Your task to perform on an android device: Clear the shopping cart on target. Search for energizer triple a on target, select the first entry, add it to the cart, then select checkout. Image 0: 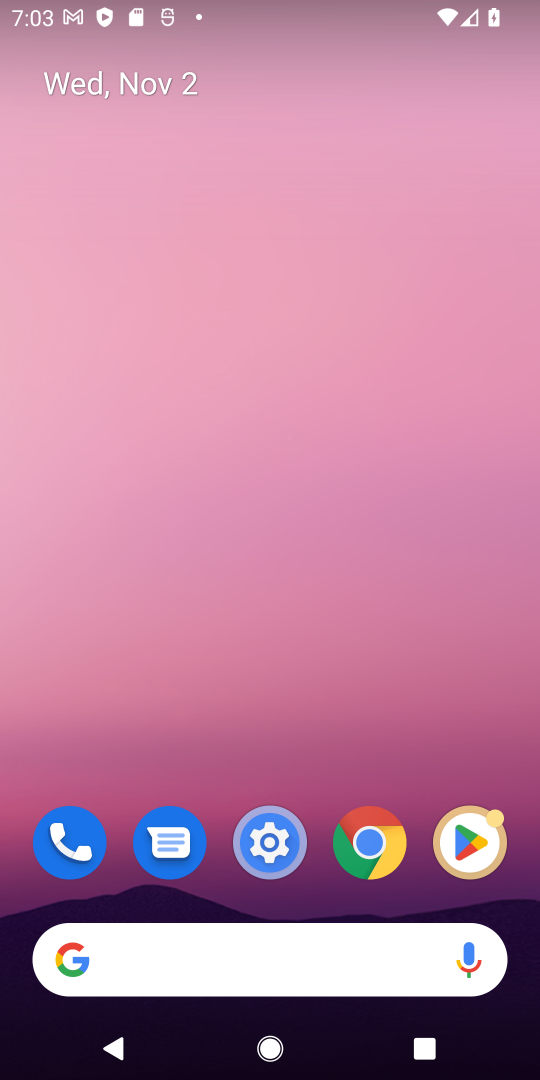
Step 0: drag from (263, 874) to (248, 407)
Your task to perform on an android device: Clear the shopping cart on target. Search for energizer triple a on target, select the first entry, add it to the cart, then select checkout. Image 1: 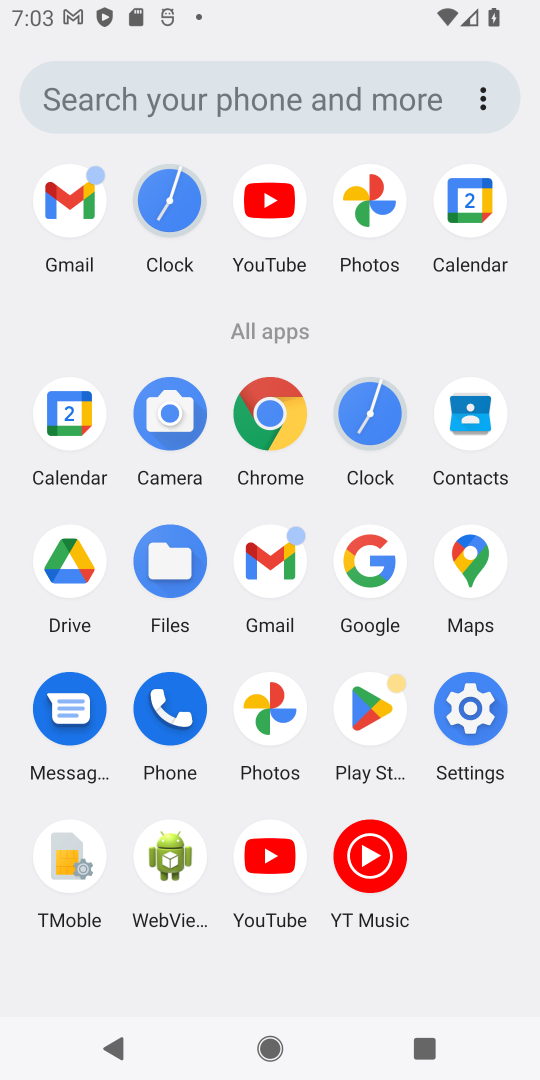
Step 1: click (390, 567)
Your task to perform on an android device: Clear the shopping cart on target. Search for energizer triple a on target, select the first entry, add it to the cart, then select checkout. Image 2: 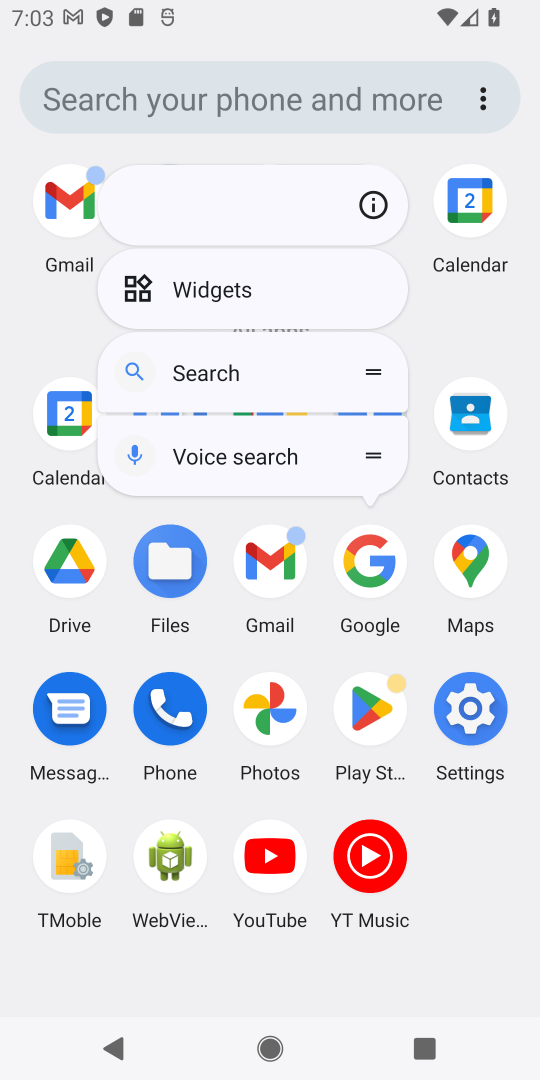
Step 2: click (373, 550)
Your task to perform on an android device: Clear the shopping cart on target. Search for energizer triple a on target, select the first entry, add it to the cart, then select checkout. Image 3: 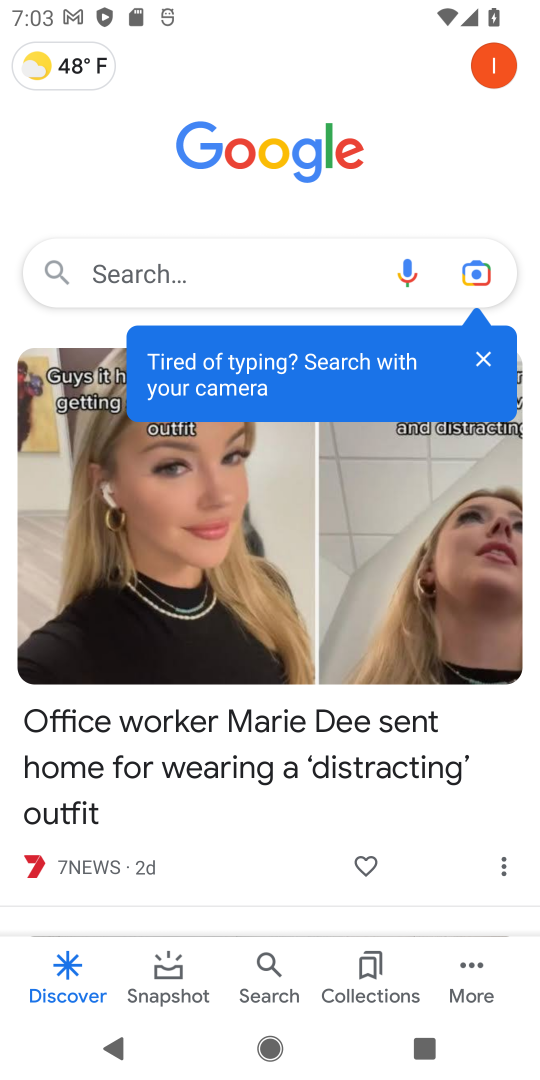
Step 3: click (204, 260)
Your task to perform on an android device: Clear the shopping cart on target. Search for energizer triple a on target, select the first entry, add it to the cart, then select checkout. Image 4: 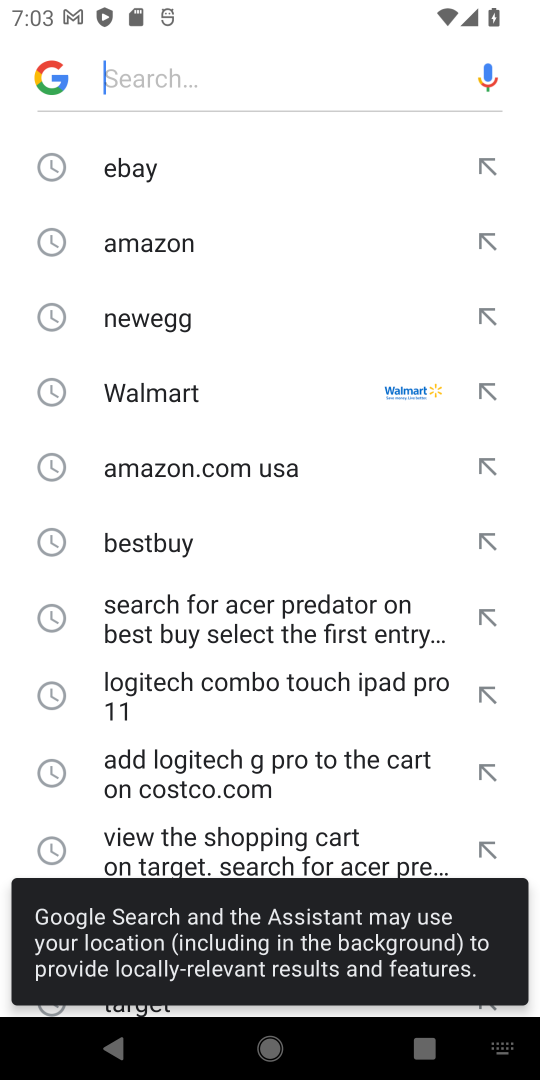
Step 4: type "target "
Your task to perform on an android device: Clear the shopping cart on target. Search for energizer triple a on target, select the first entry, add it to the cart, then select checkout. Image 5: 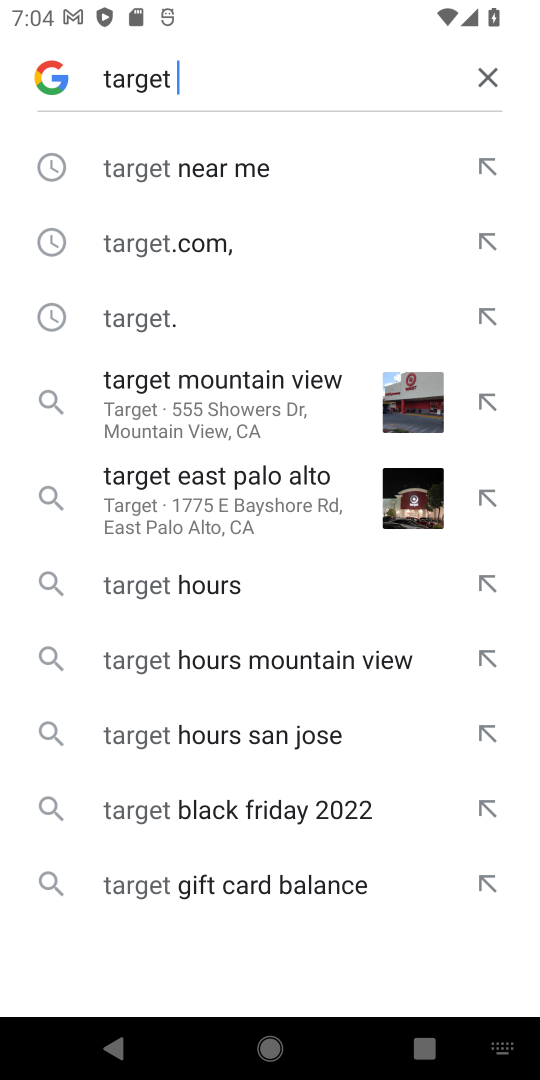
Step 5: click (110, 158)
Your task to perform on an android device: Clear the shopping cart on target. Search for energizer triple a on target, select the first entry, add it to the cart, then select checkout. Image 6: 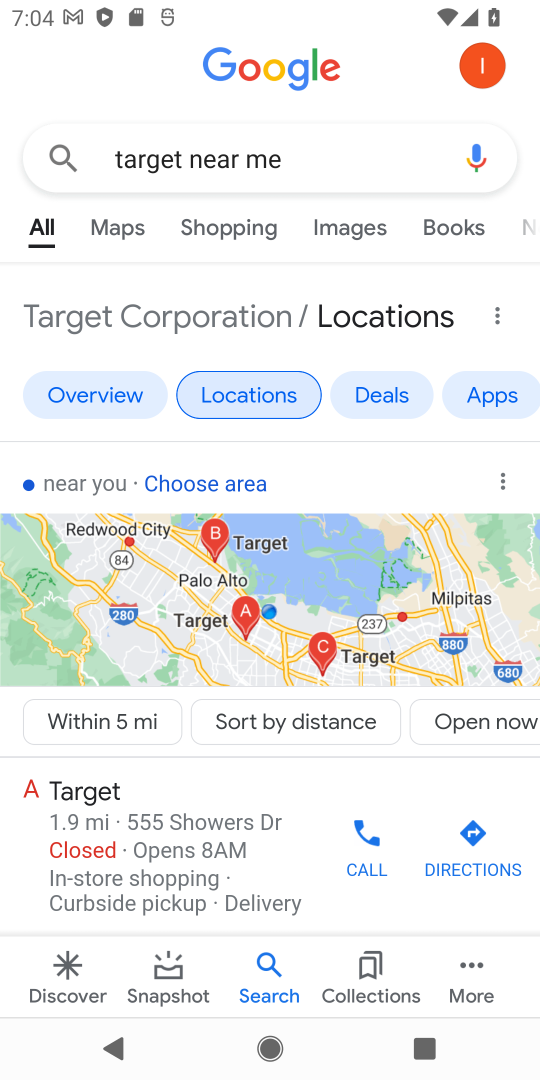
Step 6: drag from (267, 802) to (288, 218)
Your task to perform on an android device: Clear the shopping cart on target. Search for energizer triple a on target, select the first entry, add it to the cart, then select checkout. Image 7: 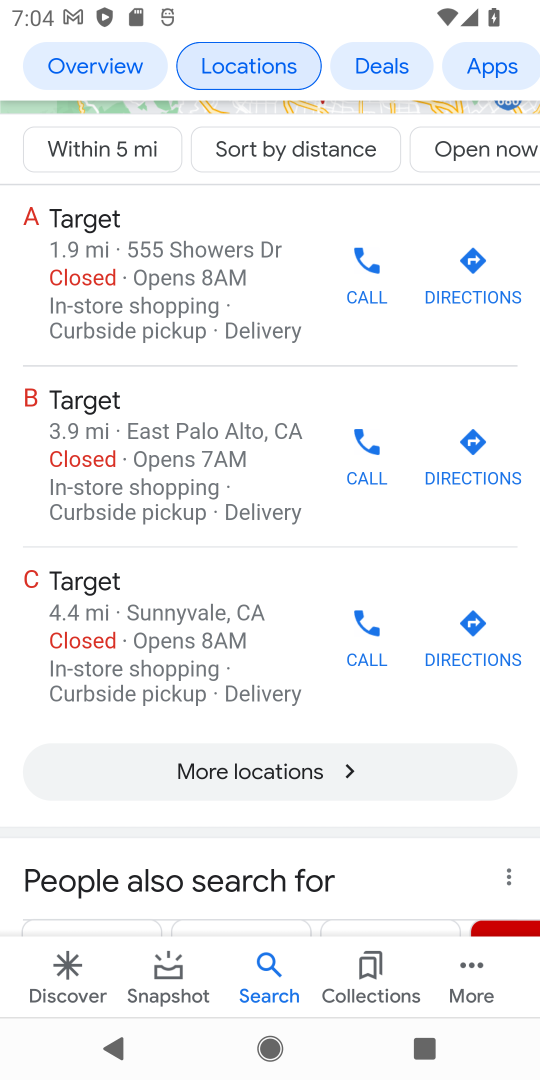
Step 7: drag from (232, 861) to (191, 279)
Your task to perform on an android device: Clear the shopping cart on target. Search for energizer triple a on target, select the first entry, add it to the cart, then select checkout. Image 8: 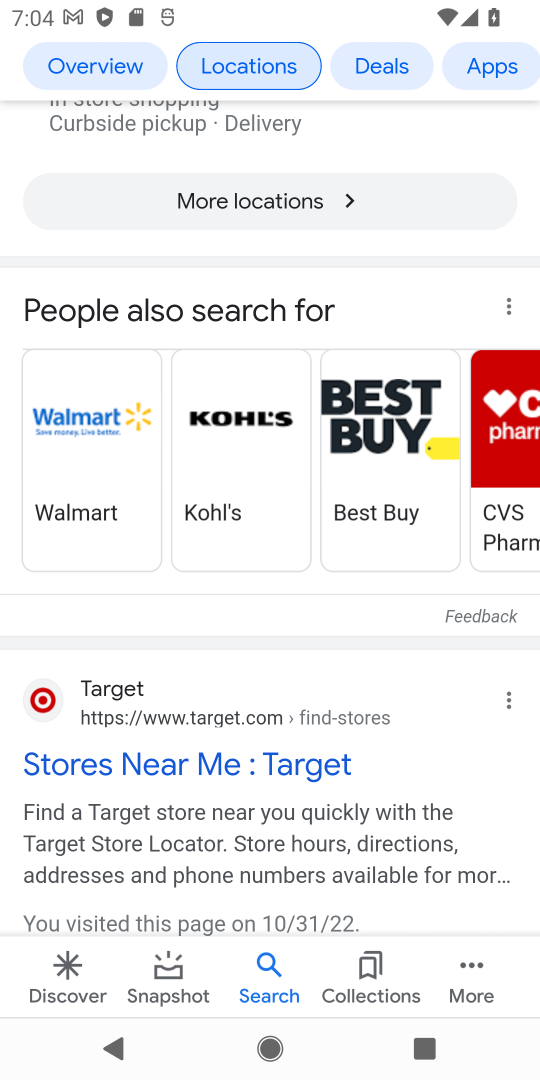
Step 8: click (109, 758)
Your task to perform on an android device: Clear the shopping cart on target. Search for energizer triple a on target, select the first entry, add it to the cart, then select checkout. Image 9: 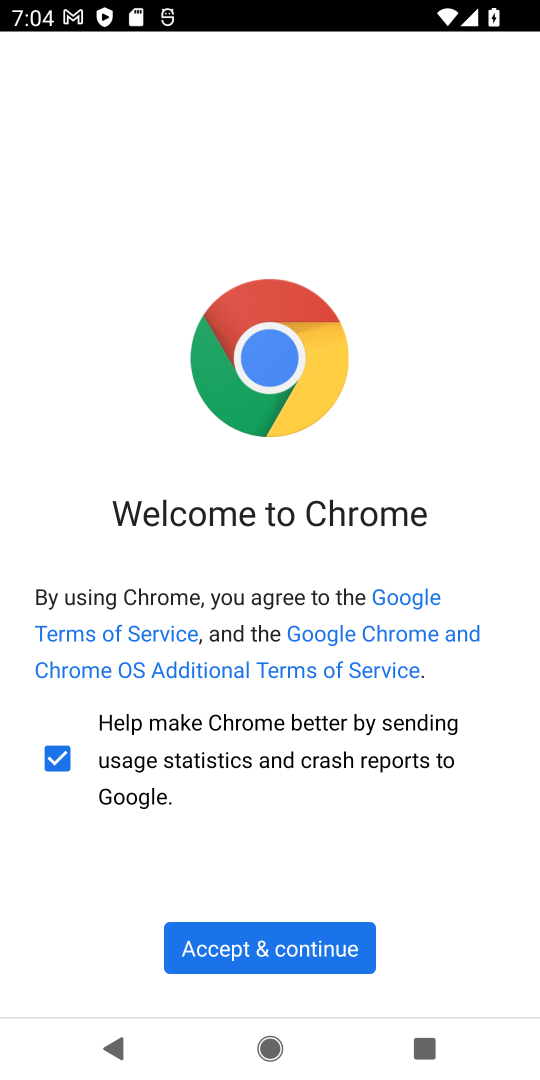
Step 9: click (240, 927)
Your task to perform on an android device: Clear the shopping cart on target. Search for energizer triple a on target, select the first entry, add it to the cart, then select checkout. Image 10: 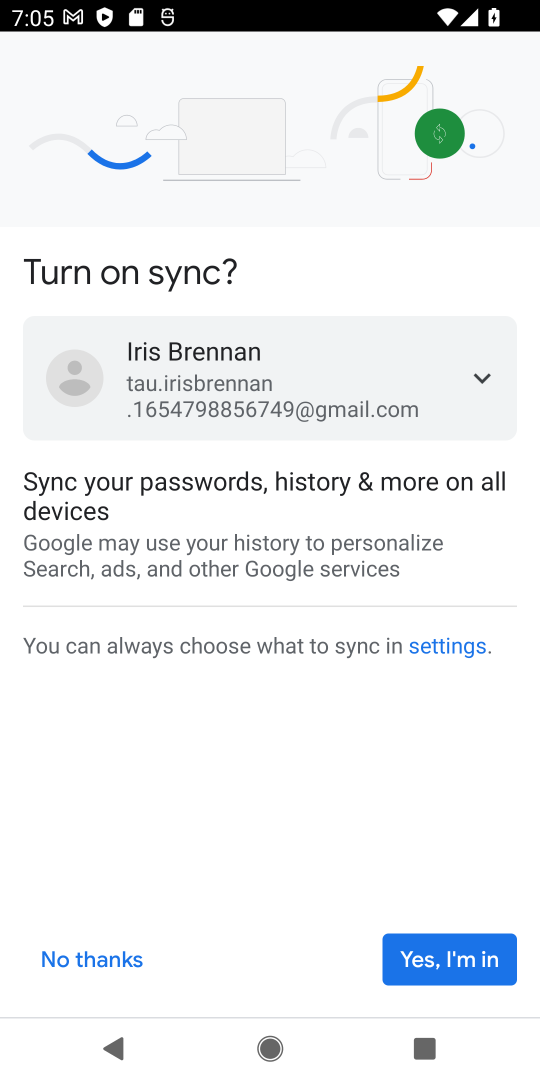
Step 10: click (63, 938)
Your task to perform on an android device: Clear the shopping cart on target. Search for energizer triple a on target, select the first entry, add it to the cart, then select checkout. Image 11: 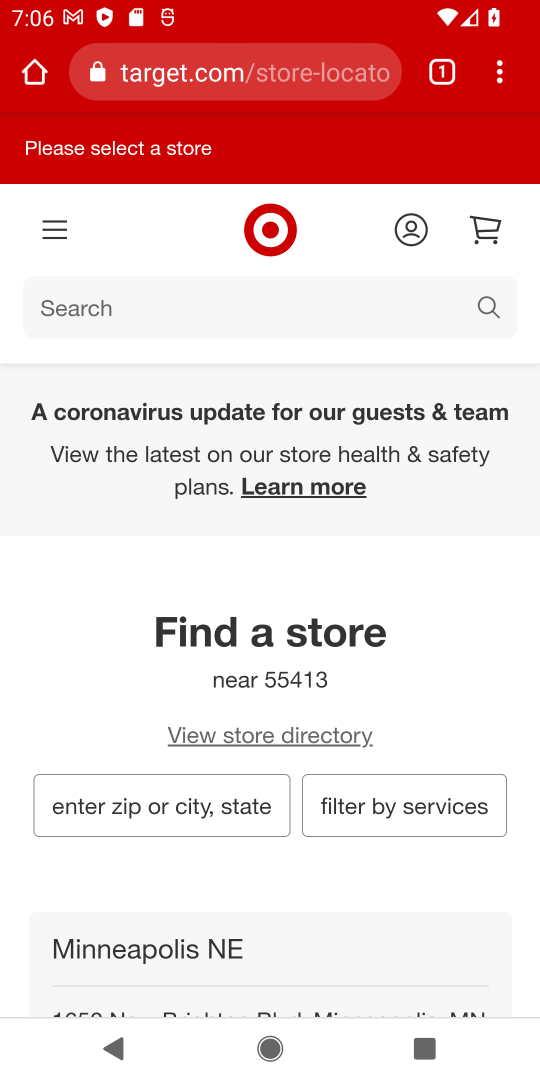
Step 11: click (153, 310)
Your task to perform on an android device: Clear the shopping cart on target. Search for energizer triple a on target, select the first entry, add it to the cart, then select checkout. Image 12: 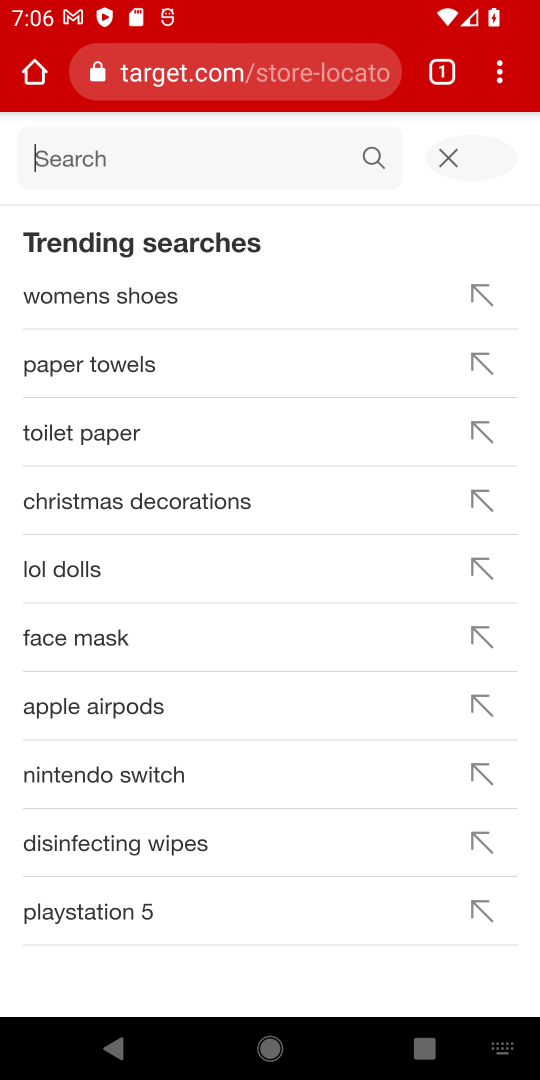
Step 12: type "energizer triple  "
Your task to perform on an android device: Clear the shopping cart on target. Search for energizer triple a on target, select the first entry, add it to the cart, then select checkout. Image 13: 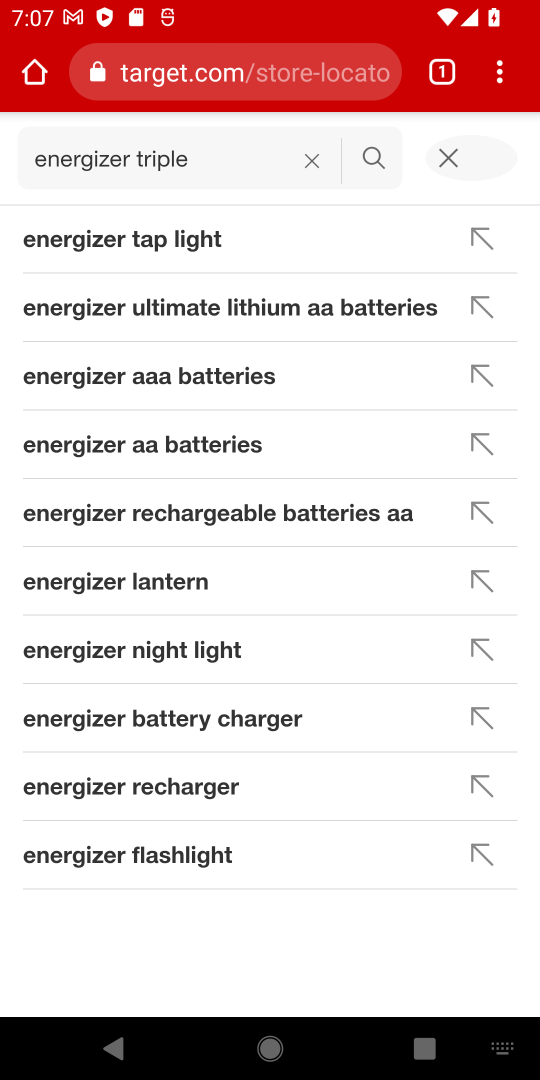
Step 13: click (162, 249)
Your task to perform on an android device: Clear the shopping cart on target. Search for energizer triple a on target, select the first entry, add it to the cart, then select checkout. Image 14: 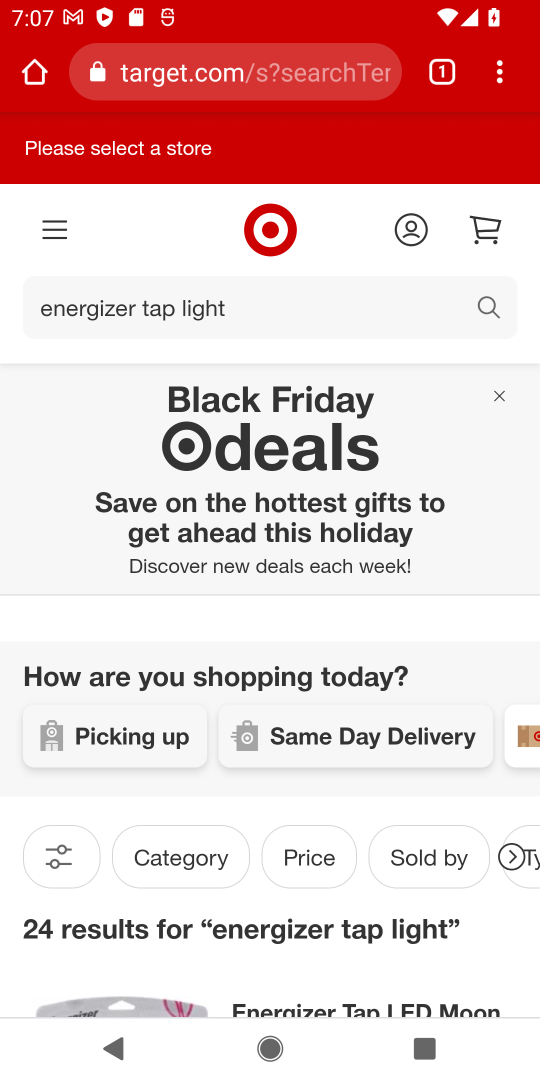
Step 14: drag from (374, 875) to (400, 429)
Your task to perform on an android device: Clear the shopping cart on target. Search for energizer triple a on target, select the first entry, add it to the cart, then select checkout. Image 15: 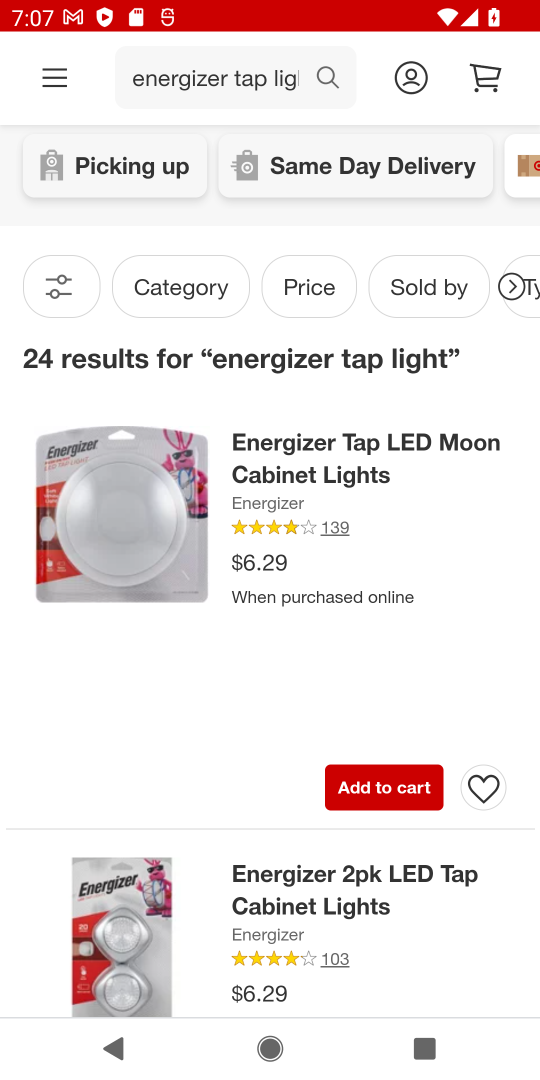
Step 15: click (319, 89)
Your task to perform on an android device: Clear the shopping cart on target. Search for energizer triple a on target, select the first entry, add it to the cart, then select checkout. Image 16: 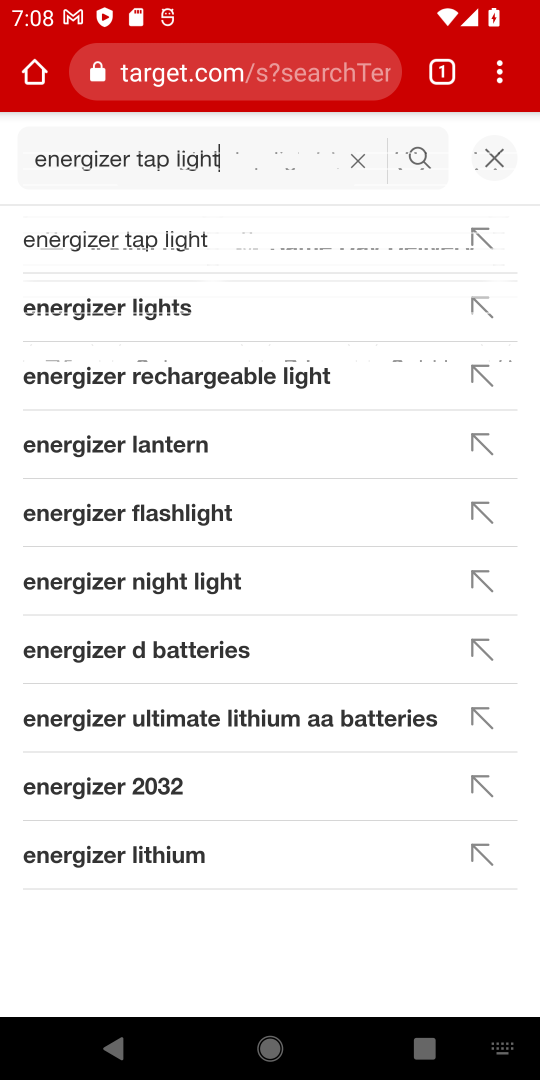
Step 16: click (497, 148)
Your task to perform on an android device: Clear the shopping cart on target. Search for energizer triple a on target, select the first entry, add it to the cart, then select checkout. Image 17: 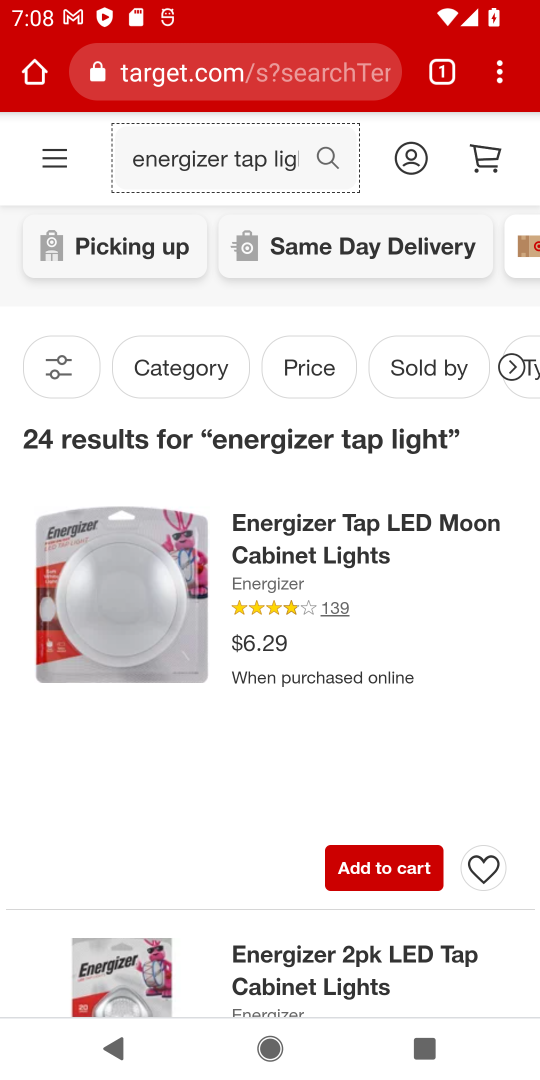
Step 17: click (332, 145)
Your task to perform on an android device: Clear the shopping cart on target. Search for energizer triple a on target, select the first entry, add it to the cart, then select checkout. Image 18: 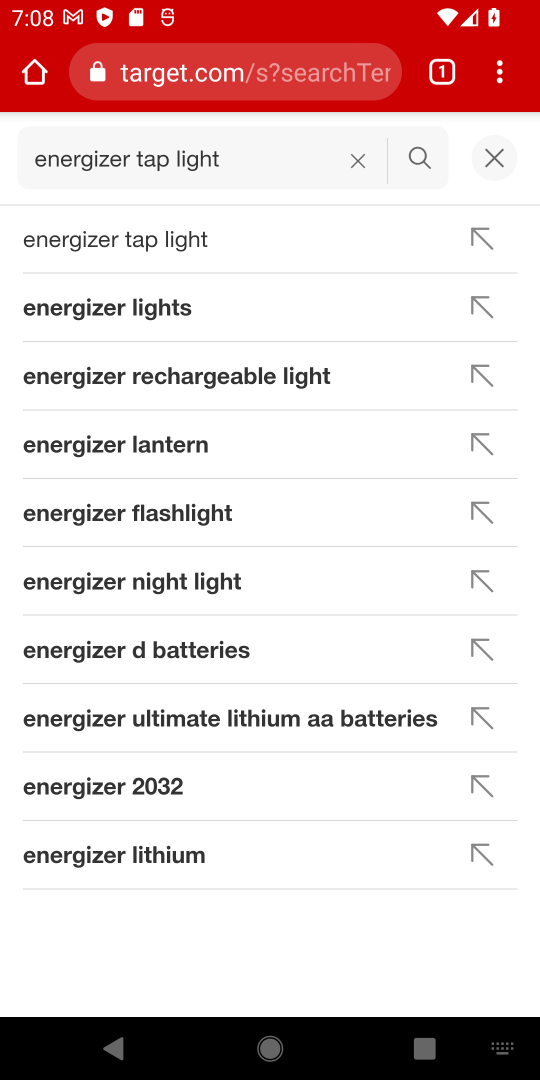
Step 18: click (345, 150)
Your task to perform on an android device: Clear the shopping cart on target. Search for energizer triple a on target, select the first entry, add it to the cart, then select checkout. Image 19: 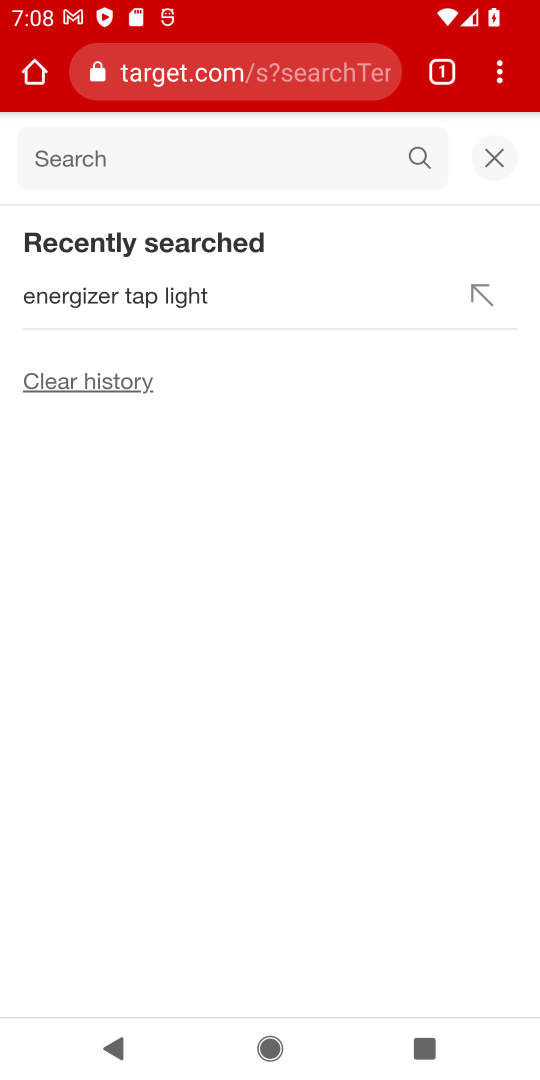
Step 19: click (211, 145)
Your task to perform on an android device: Clear the shopping cart on target. Search for energizer triple a on target, select the first entry, add it to the cart, then select checkout. Image 20: 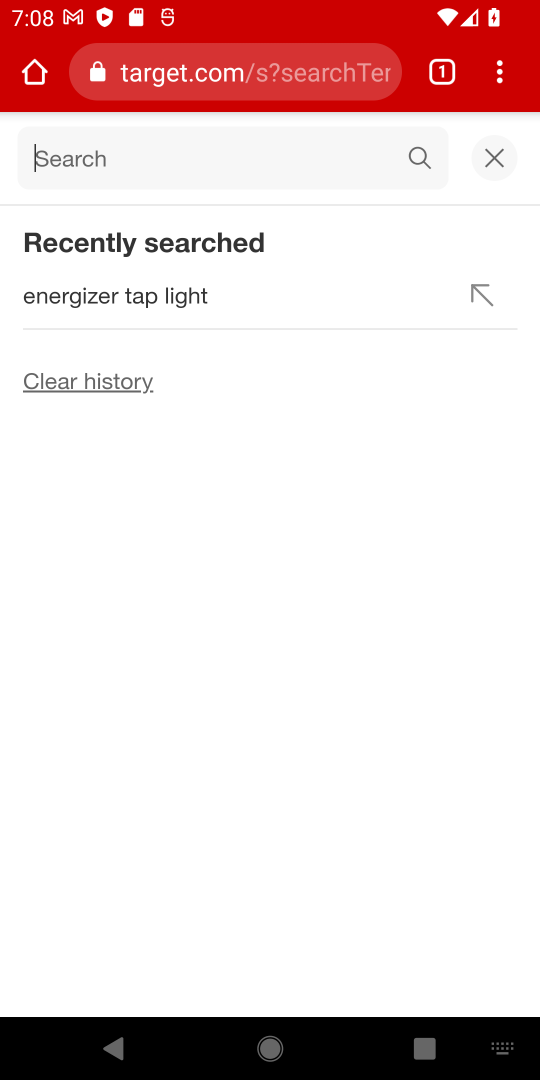
Step 20: type "triple "
Your task to perform on an android device: Clear the shopping cart on target. Search for energizer triple a on target, select the first entry, add it to the cart, then select checkout. Image 21: 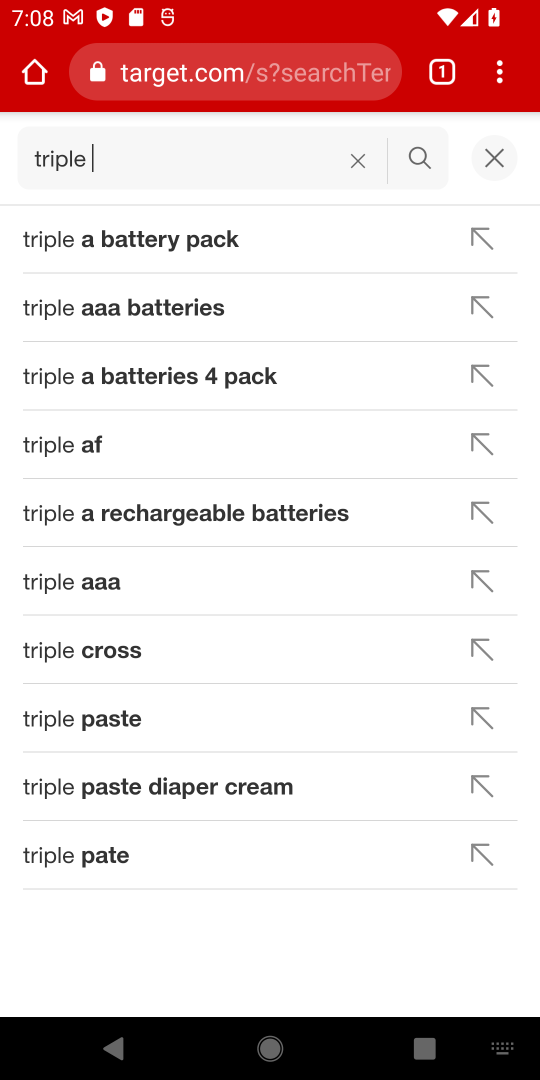
Step 21: click (62, 250)
Your task to perform on an android device: Clear the shopping cart on target. Search for energizer triple a on target, select the first entry, add it to the cart, then select checkout. Image 22: 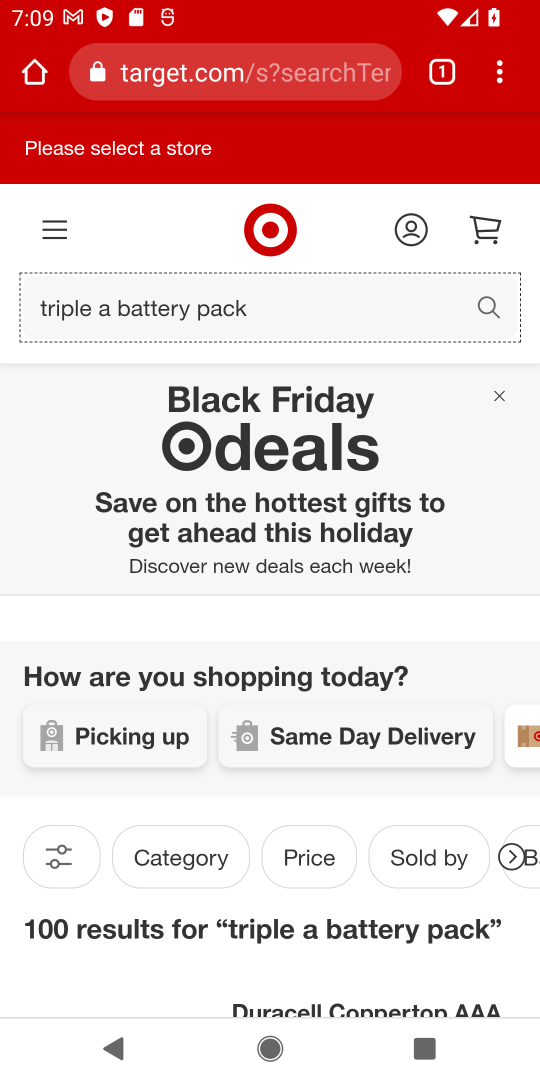
Step 22: drag from (143, 886) to (158, 519)
Your task to perform on an android device: Clear the shopping cart on target. Search for energizer triple a on target, select the first entry, add it to the cart, then select checkout. Image 23: 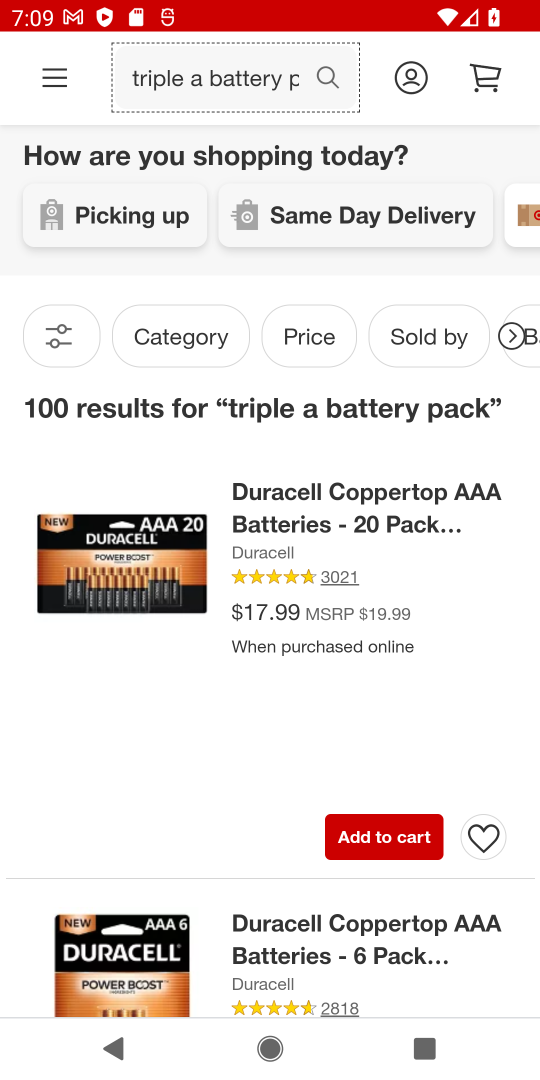
Step 23: click (312, 63)
Your task to perform on an android device: Clear the shopping cart on target. Search for energizer triple a on target, select the first entry, add it to the cart, then select checkout. Image 24: 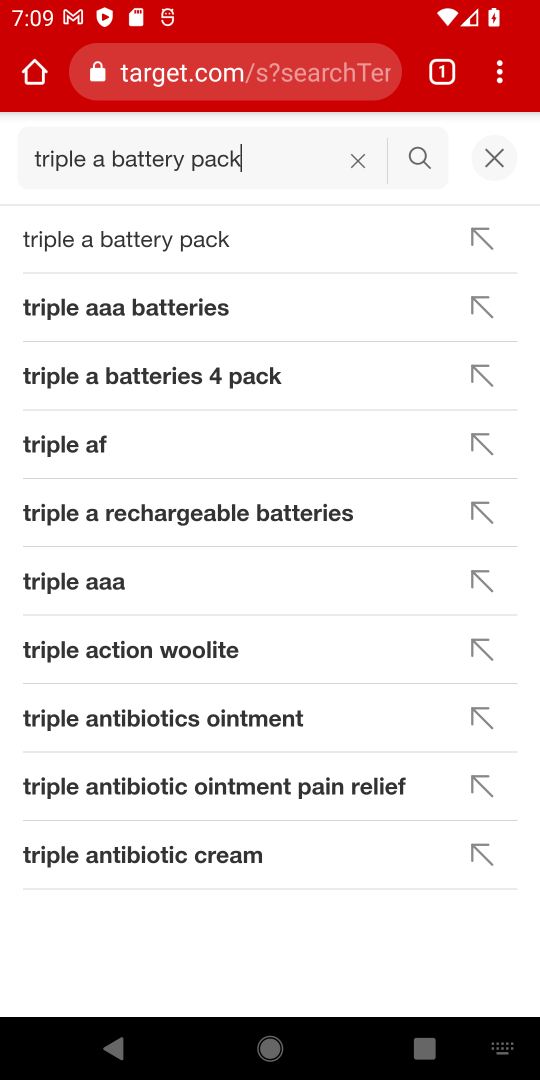
Step 24: click (489, 150)
Your task to perform on an android device: Clear the shopping cart on target. Search for energizer triple a on target, select the first entry, add it to the cart, then select checkout. Image 25: 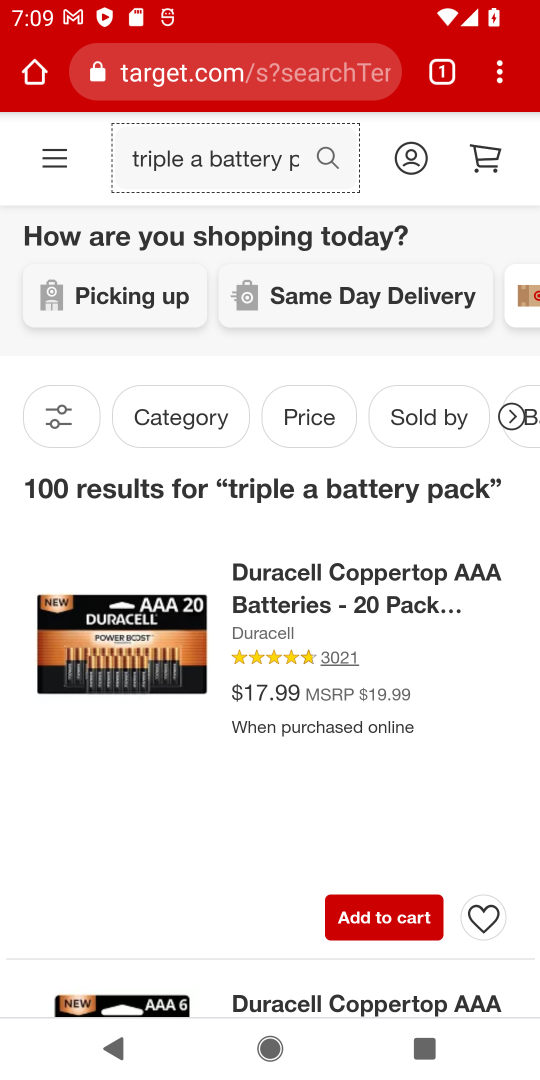
Step 25: click (220, 163)
Your task to perform on an android device: Clear the shopping cart on target. Search for energizer triple a on target, select the first entry, add it to the cart, then select checkout. Image 26: 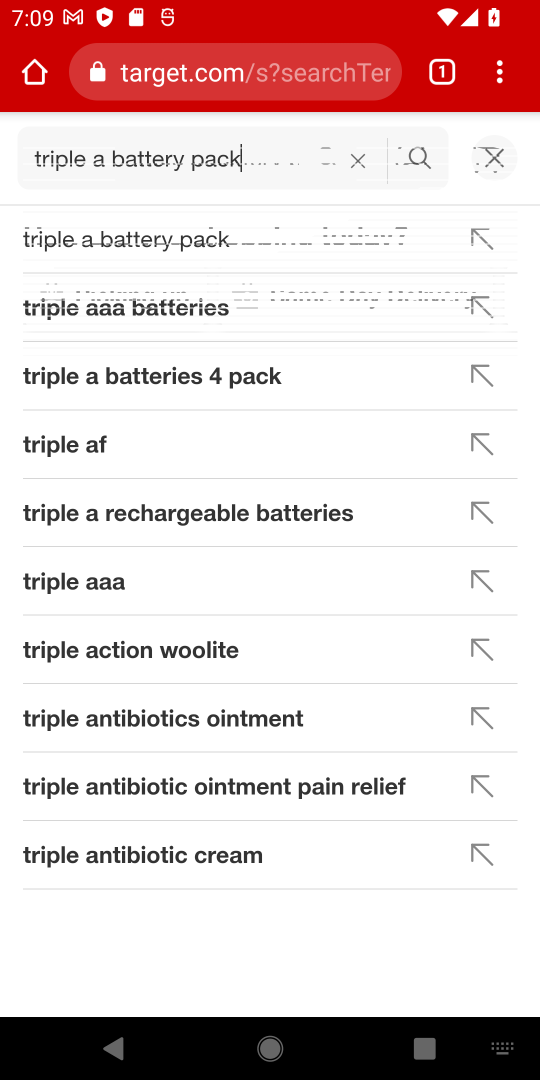
Step 26: click (353, 158)
Your task to perform on an android device: Clear the shopping cart on target. Search for energizer triple a on target, select the first entry, add it to the cart, then select checkout. Image 27: 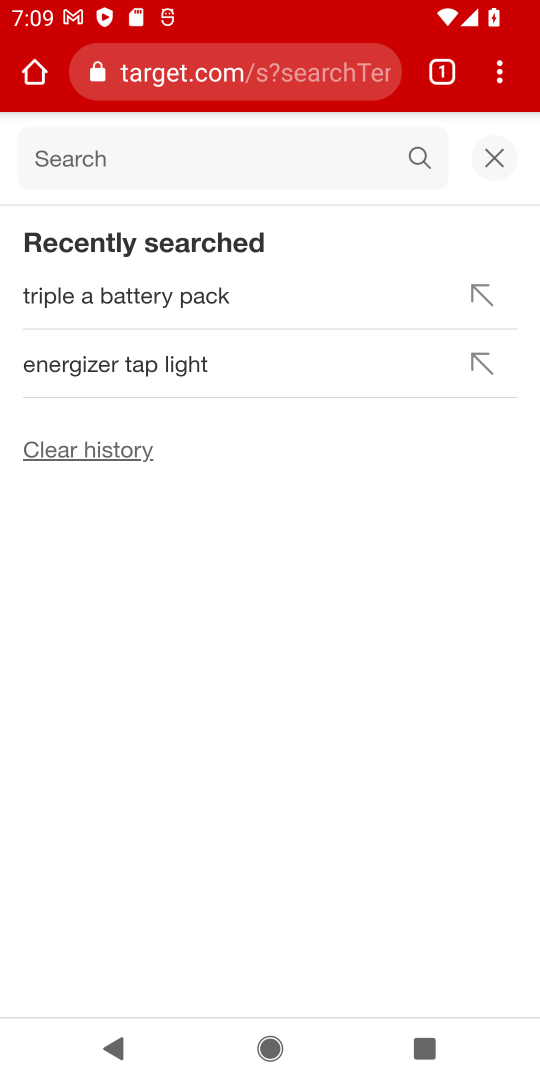
Step 27: click (181, 156)
Your task to perform on an android device: Clear the shopping cart on target. Search for energizer triple a on target, select the first entry, add it to the cart, then select checkout. Image 28: 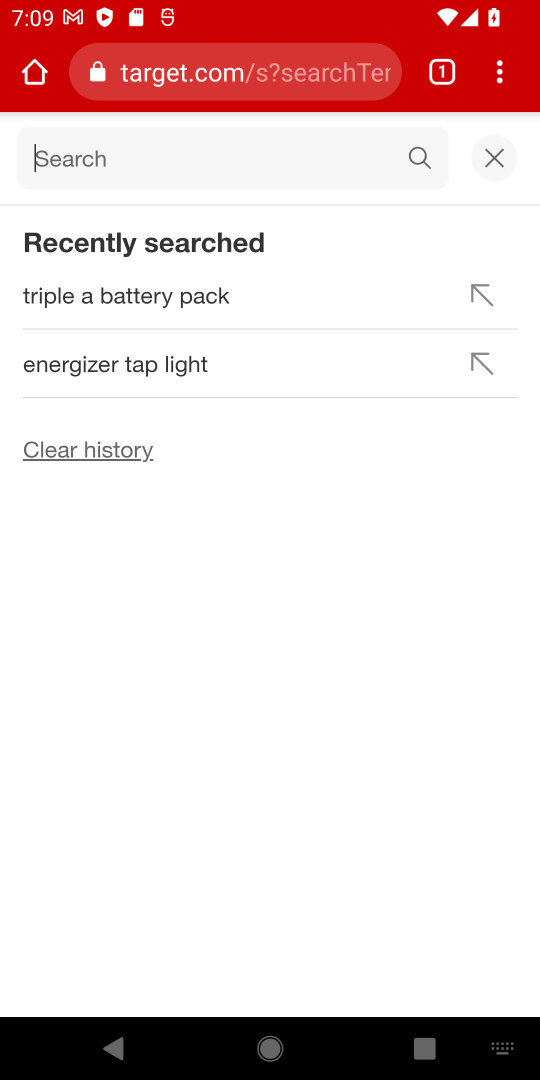
Step 28: type "energizer triple "
Your task to perform on an android device: Clear the shopping cart on target. Search for energizer triple a on target, select the first entry, add it to the cart, then select checkout. Image 29: 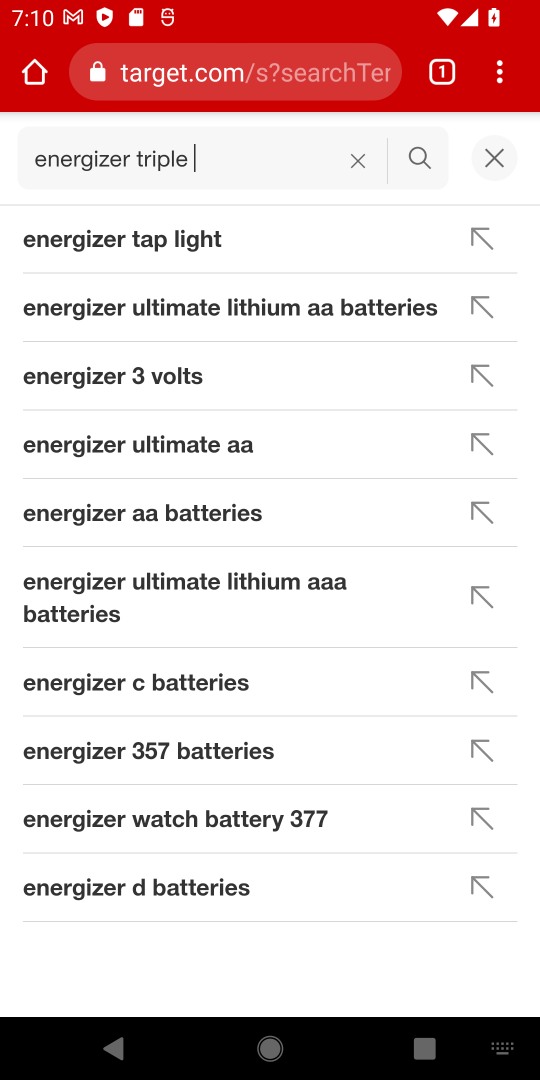
Step 29: click (148, 674)
Your task to perform on an android device: Clear the shopping cart on target. Search for energizer triple a on target, select the first entry, add it to the cart, then select checkout. Image 30: 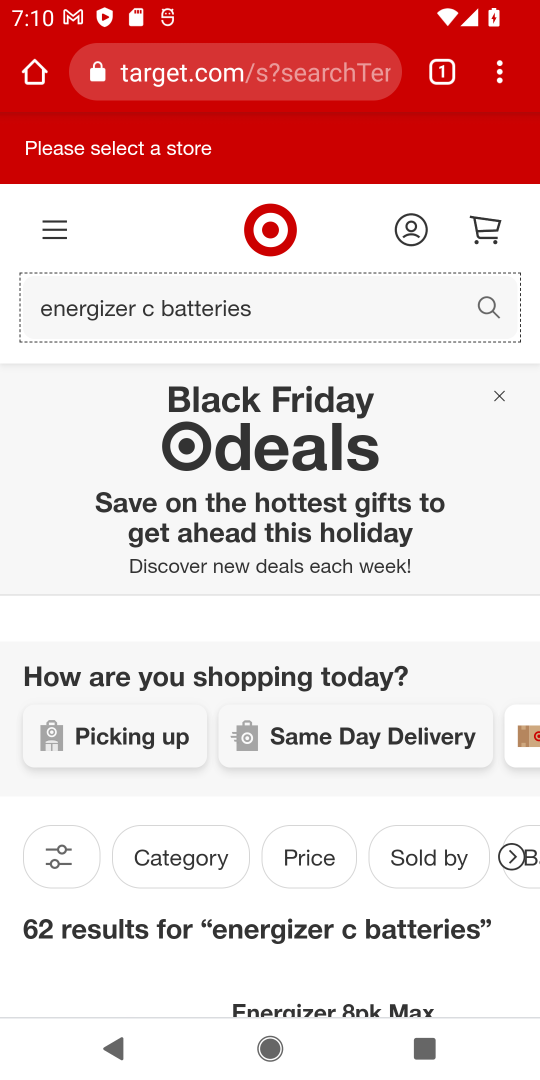
Step 30: drag from (201, 836) to (258, 232)
Your task to perform on an android device: Clear the shopping cart on target. Search for energizer triple a on target, select the first entry, add it to the cart, then select checkout. Image 31: 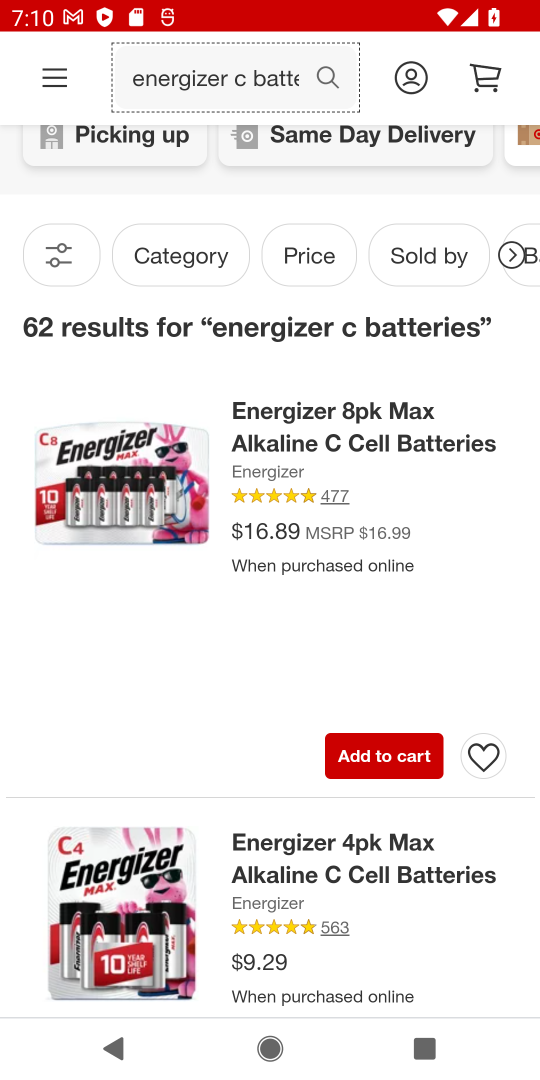
Step 31: click (381, 753)
Your task to perform on an android device: Clear the shopping cart on target. Search for energizer triple a on target, select the first entry, add it to the cart, then select checkout. Image 32: 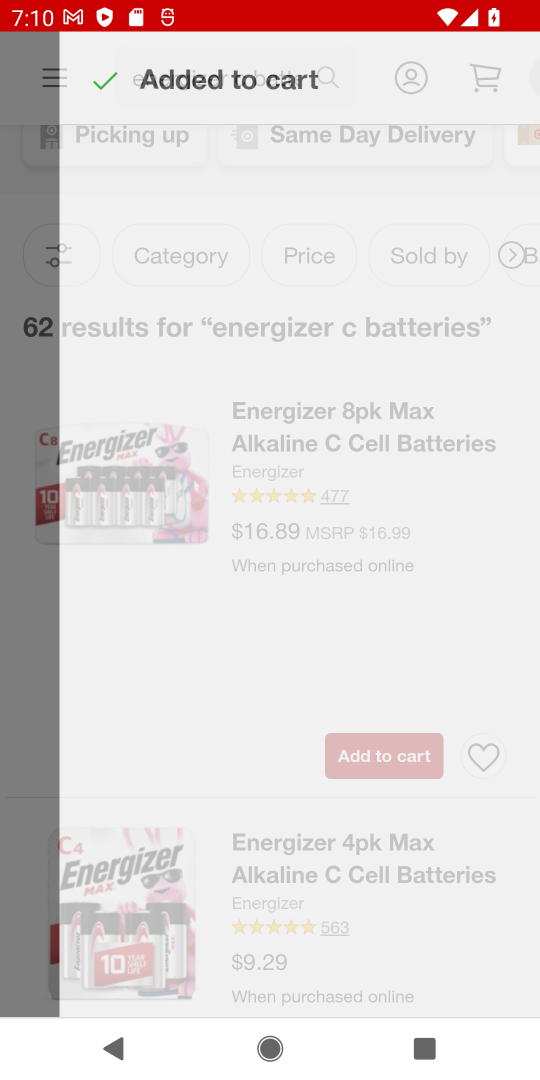
Step 32: task complete